Your task to perform on an android device: Open display settings Image 0: 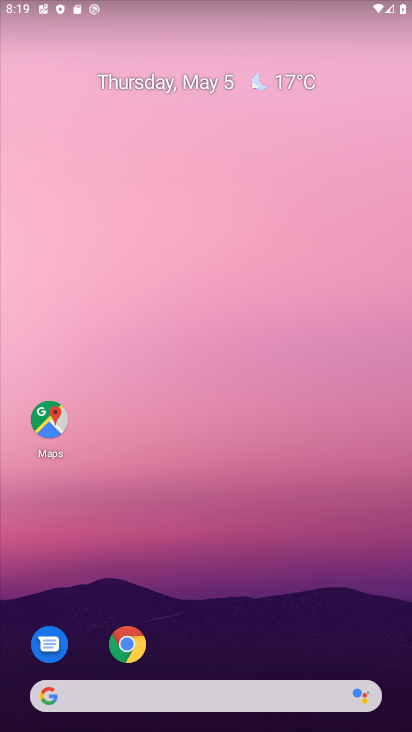
Step 0: drag from (247, 625) to (307, 138)
Your task to perform on an android device: Open display settings Image 1: 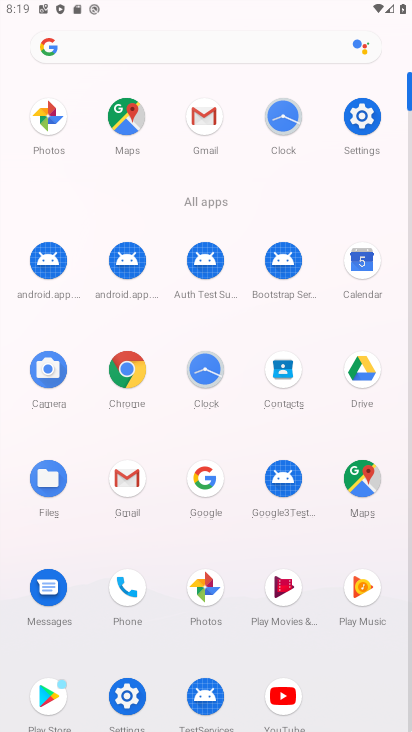
Step 1: click (360, 108)
Your task to perform on an android device: Open display settings Image 2: 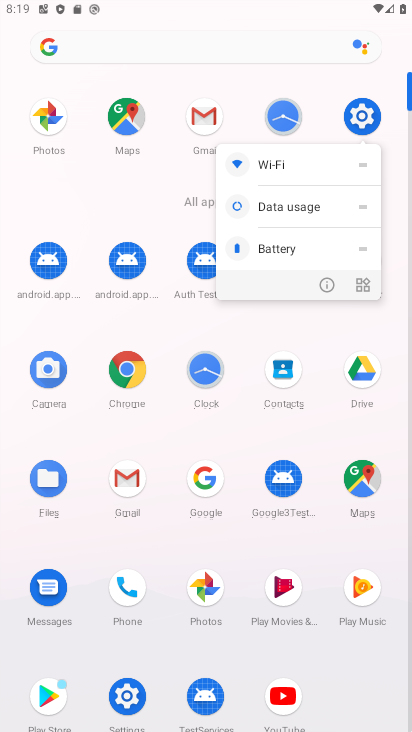
Step 2: click (329, 291)
Your task to perform on an android device: Open display settings Image 3: 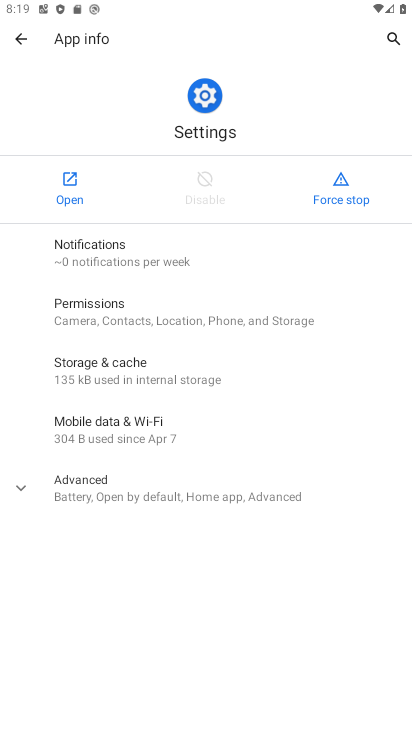
Step 3: click (54, 185)
Your task to perform on an android device: Open display settings Image 4: 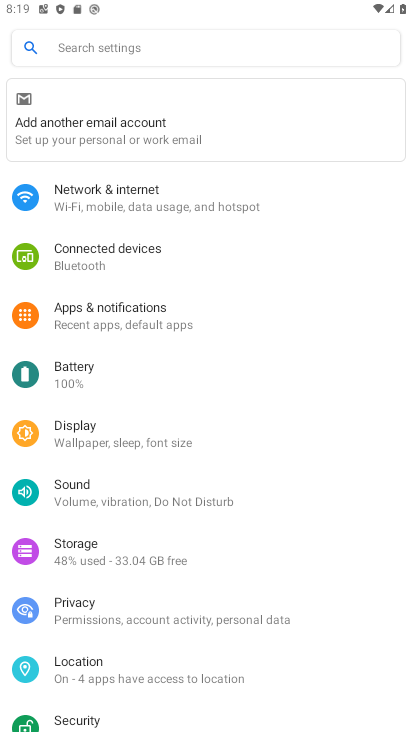
Step 4: click (124, 430)
Your task to perform on an android device: Open display settings Image 5: 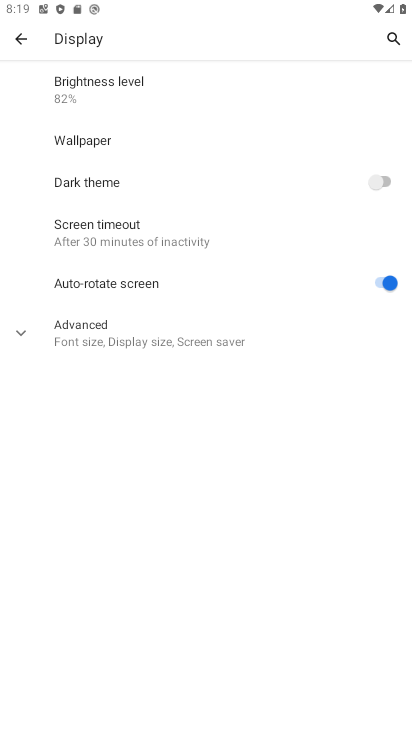
Step 5: task complete